Your task to perform on an android device: Go to internet settings Image 0: 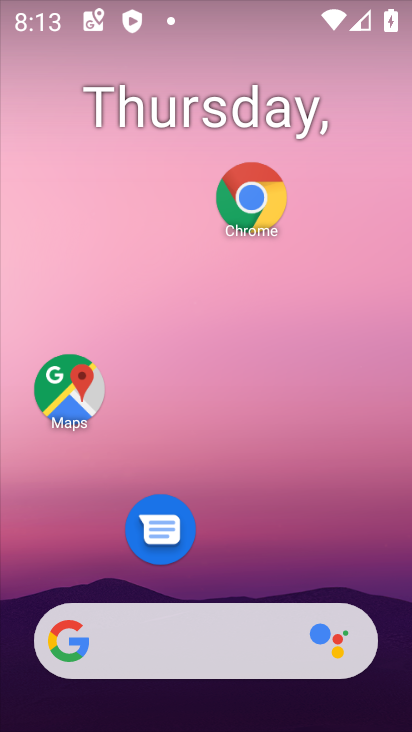
Step 0: drag from (211, 571) to (109, 16)
Your task to perform on an android device: Go to internet settings Image 1: 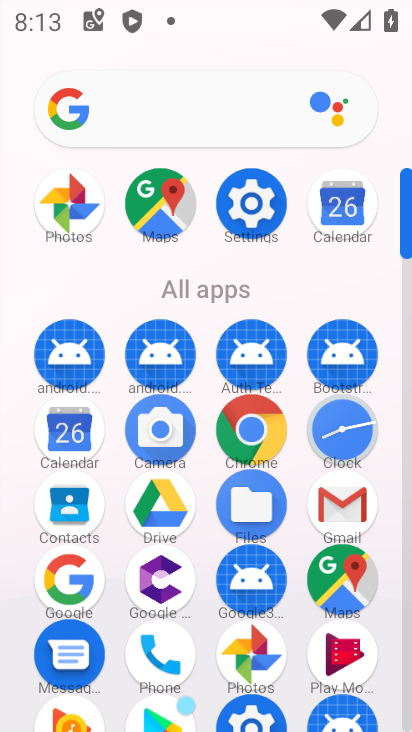
Step 1: click (234, 196)
Your task to perform on an android device: Go to internet settings Image 2: 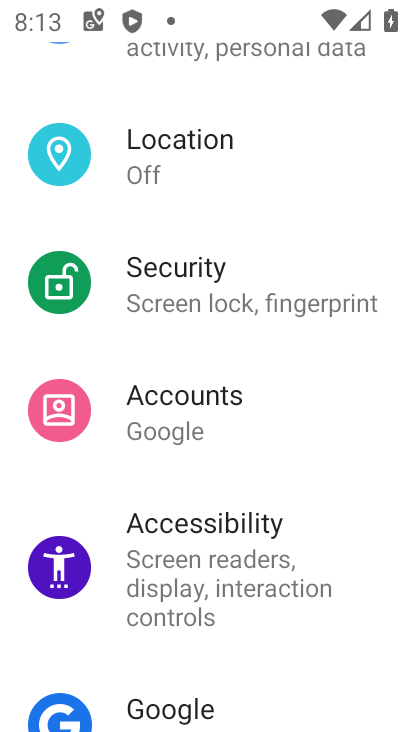
Step 2: drag from (230, 198) to (252, 707)
Your task to perform on an android device: Go to internet settings Image 3: 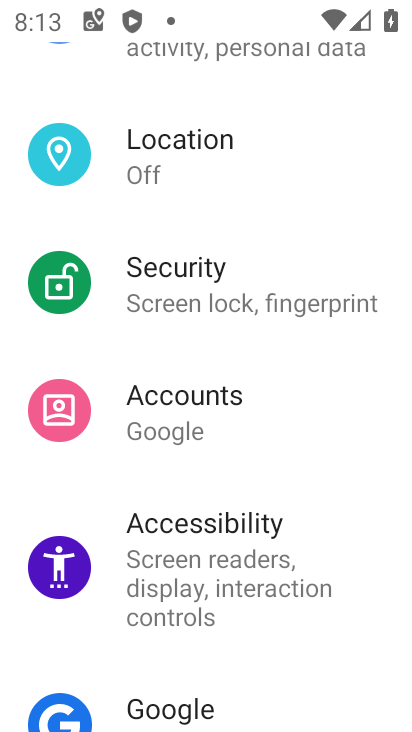
Step 3: drag from (219, 239) to (221, 596)
Your task to perform on an android device: Go to internet settings Image 4: 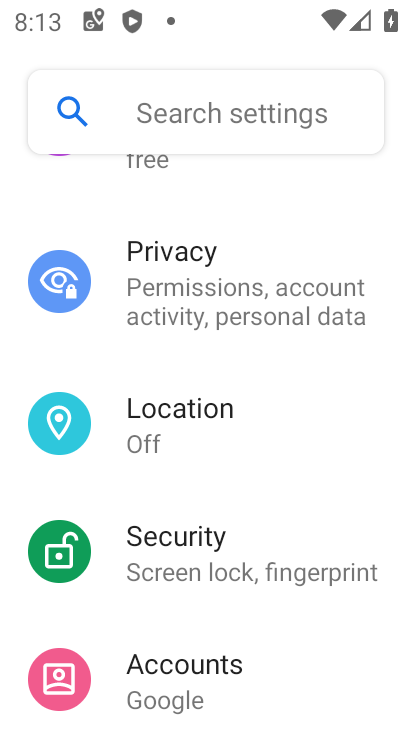
Step 4: drag from (204, 354) to (185, 598)
Your task to perform on an android device: Go to internet settings Image 5: 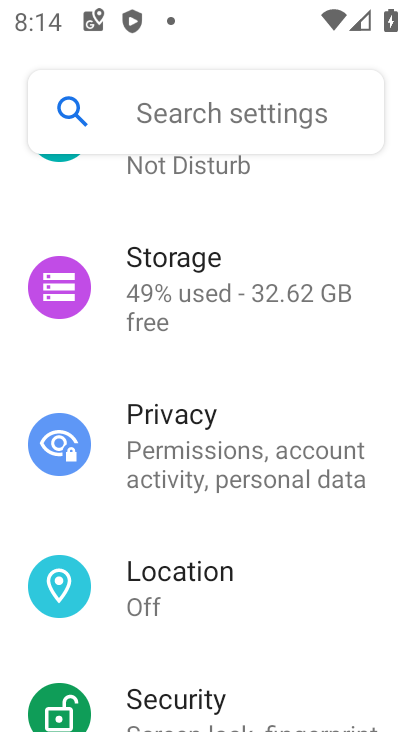
Step 5: drag from (212, 312) to (214, 680)
Your task to perform on an android device: Go to internet settings Image 6: 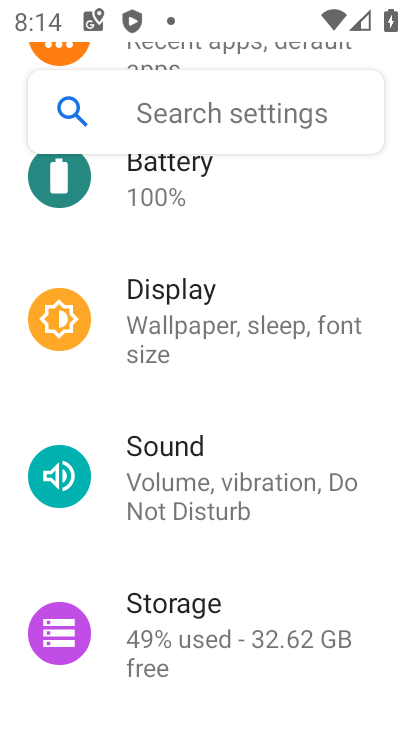
Step 6: drag from (207, 331) to (190, 731)
Your task to perform on an android device: Go to internet settings Image 7: 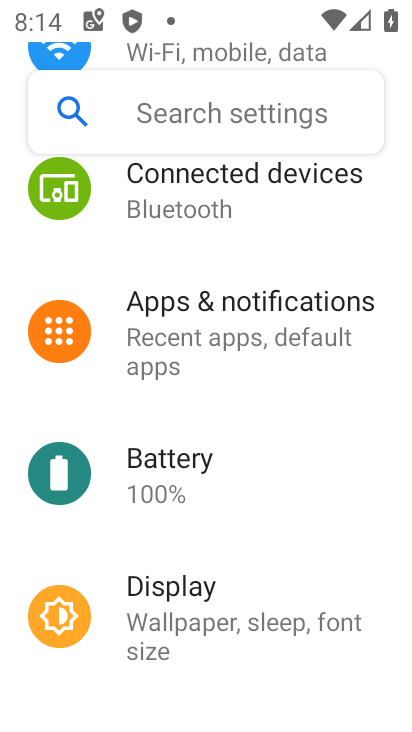
Step 7: drag from (159, 225) to (158, 727)
Your task to perform on an android device: Go to internet settings Image 8: 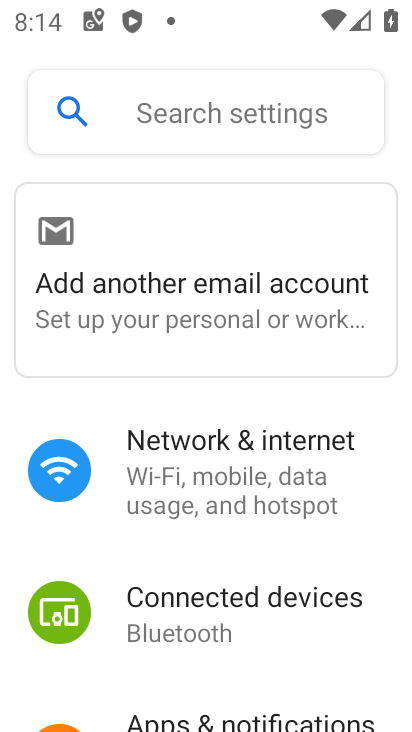
Step 8: click (168, 461)
Your task to perform on an android device: Go to internet settings Image 9: 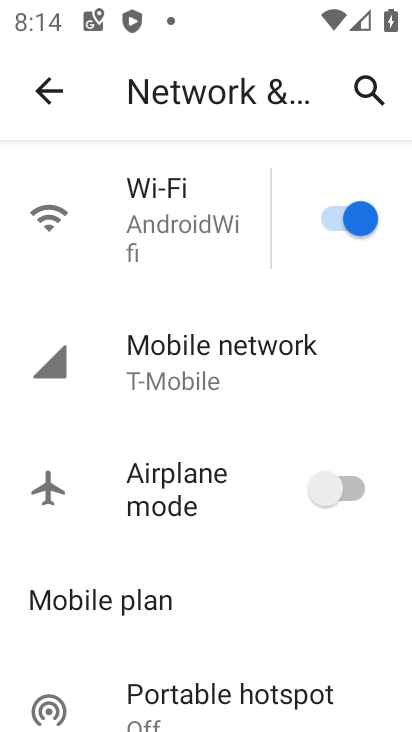
Step 9: task complete